Your task to perform on an android device: Open calendar and show me the second week of next month Image 0: 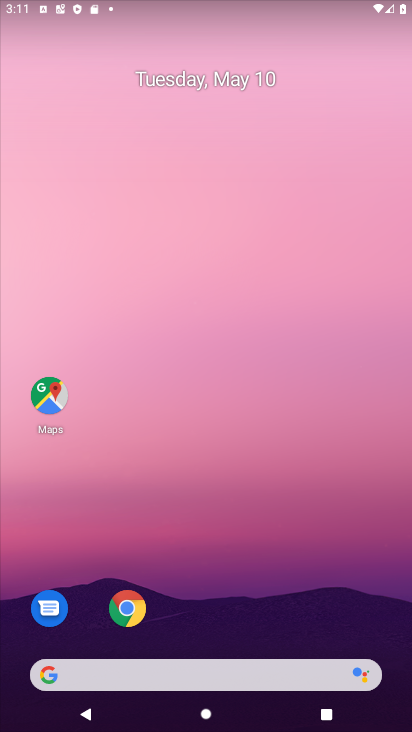
Step 0: drag from (396, 648) to (232, 134)
Your task to perform on an android device: Open calendar and show me the second week of next month Image 1: 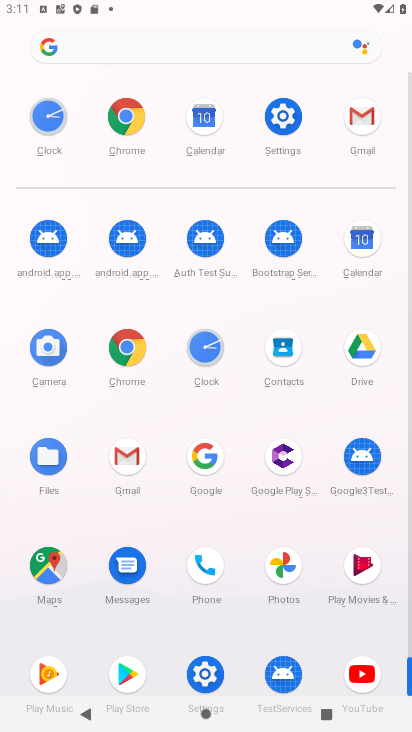
Step 1: click (360, 237)
Your task to perform on an android device: Open calendar and show me the second week of next month Image 2: 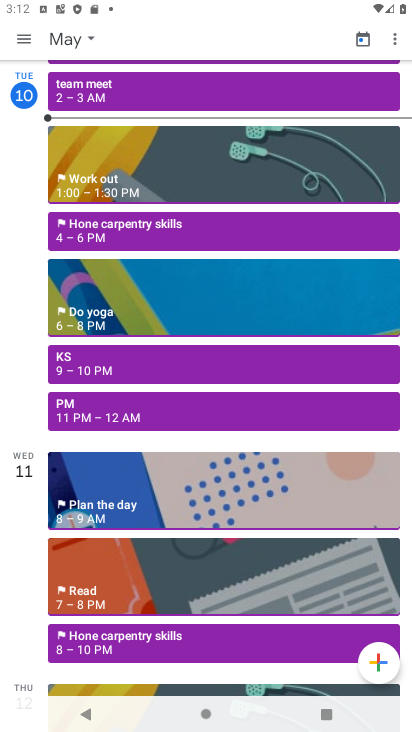
Step 2: click (25, 39)
Your task to perform on an android device: Open calendar and show me the second week of next month Image 3: 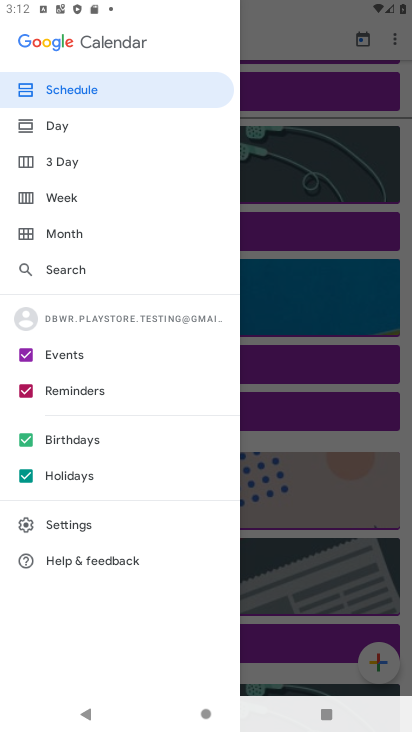
Step 3: click (55, 195)
Your task to perform on an android device: Open calendar and show me the second week of next month Image 4: 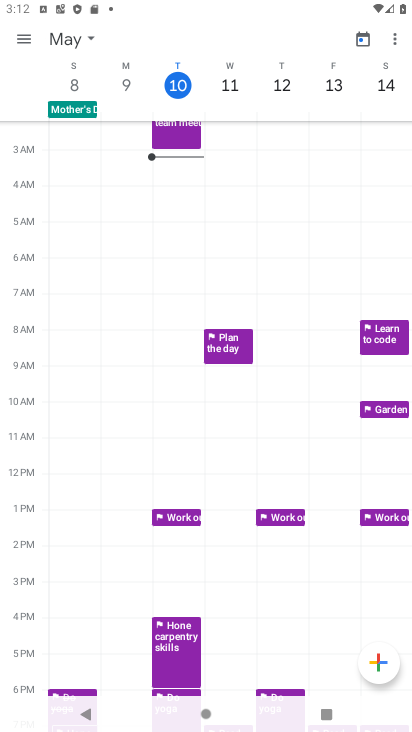
Step 4: click (91, 35)
Your task to perform on an android device: Open calendar and show me the second week of next month Image 5: 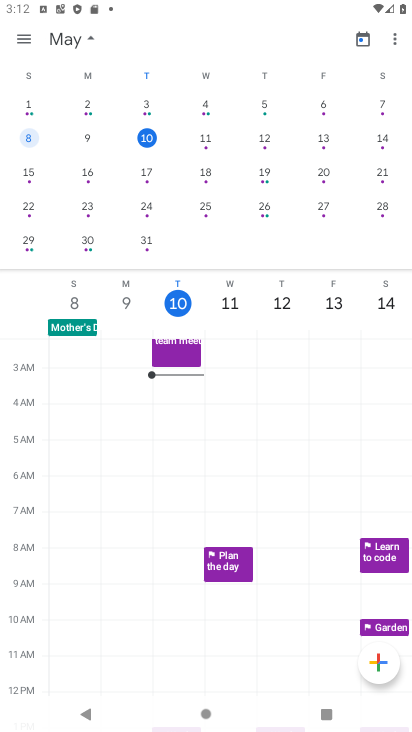
Step 5: drag from (379, 172) to (1, 140)
Your task to perform on an android device: Open calendar and show me the second week of next month Image 6: 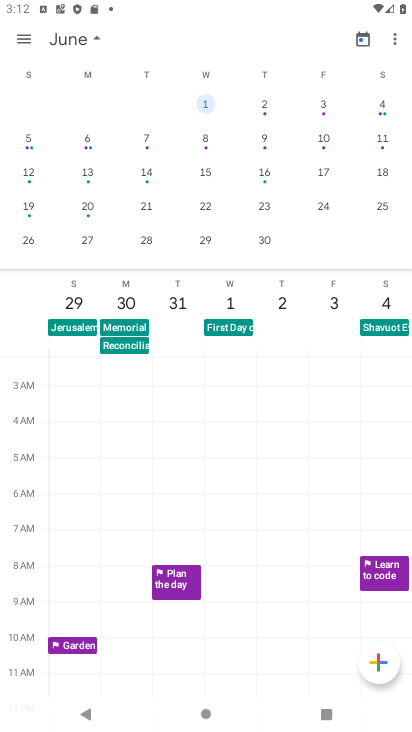
Step 6: click (28, 139)
Your task to perform on an android device: Open calendar and show me the second week of next month Image 7: 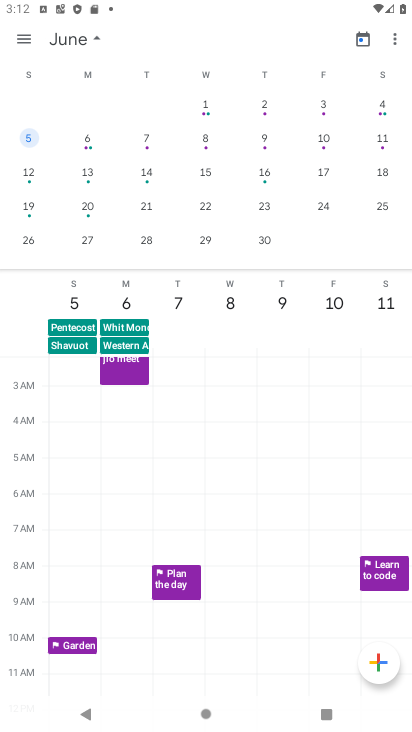
Step 7: task complete